Your task to perform on an android device: open wifi settings Image 0: 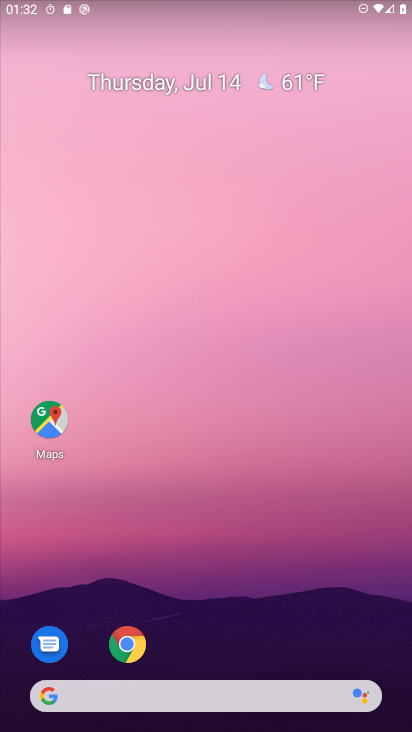
Step 0: drag from (321, 569) to (258, 106)
Your task to perform on an android device: open wifi settings Image 1: 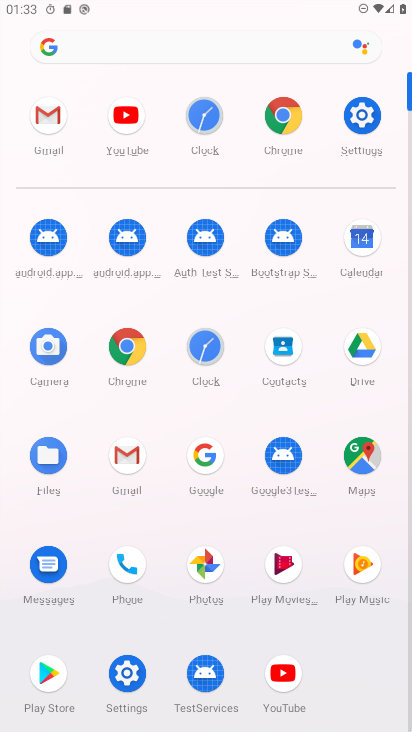
Step 1: click (369, 114)
Your task to perform on an android device: open wifi settings Image 2: 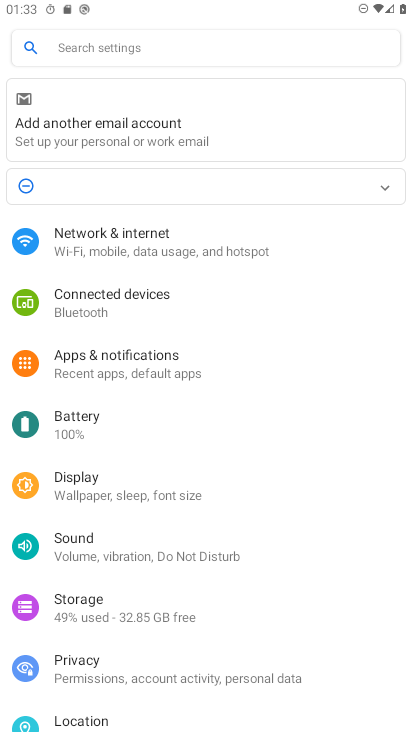
Step 2: click (126, 239)
Your task to perform on an android device: open wifi settings Image 3: 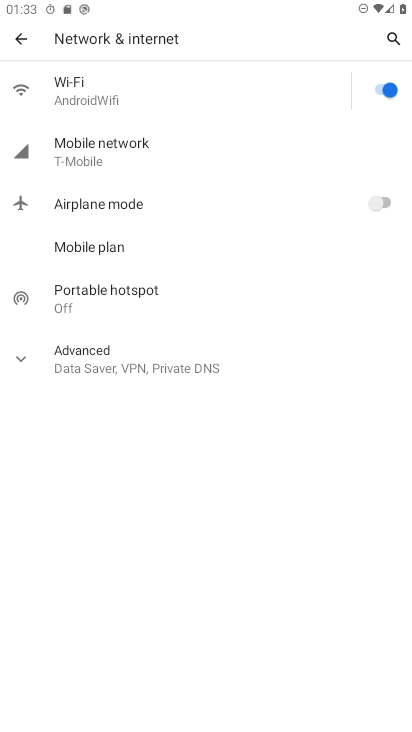
Step 3: click (99, 80)
Your task to perform on an android device: open wifi settings Image 4: 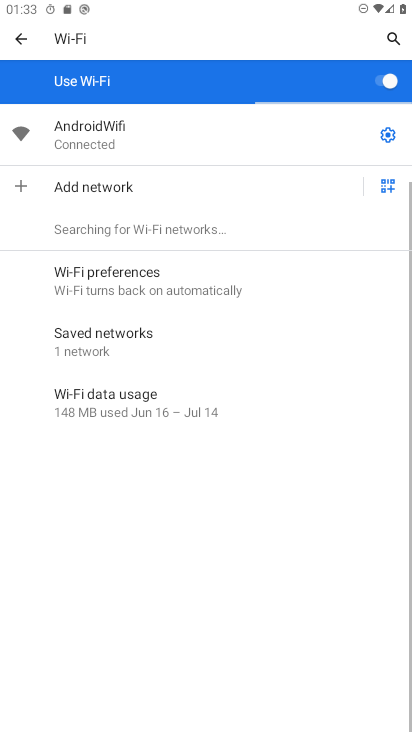
Step 4: click (392, 136)
Your task to perform on an android device: open wifi settings Image 5: 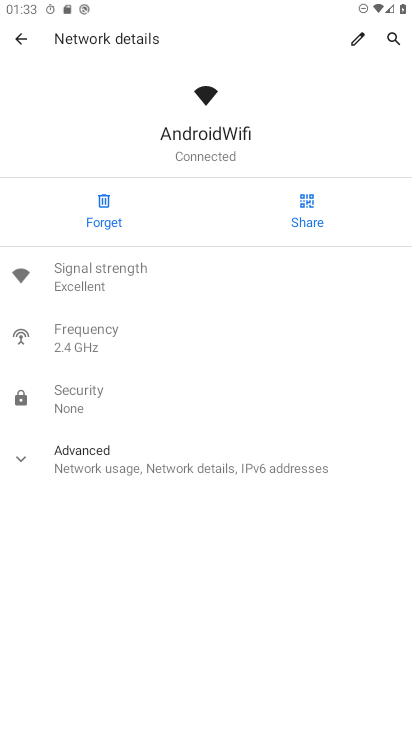
Step 5: task complete